Your task to perform on an android device: Open Google Chrome Image 0: 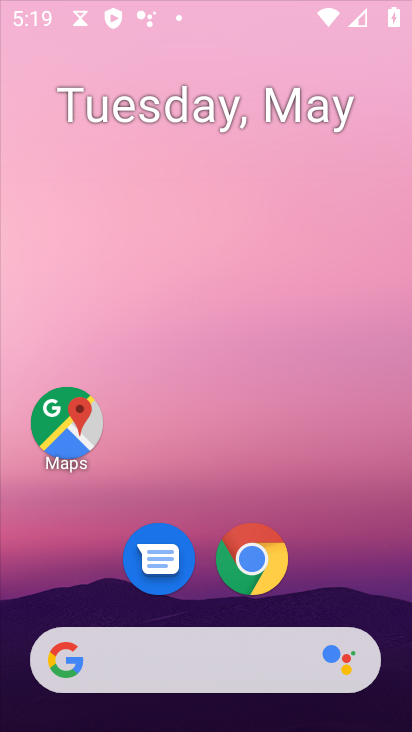
Step 0: drag from (305, 643) to (264, 214)
Your task to perform on an android device: Open Google Chrome Image 1: 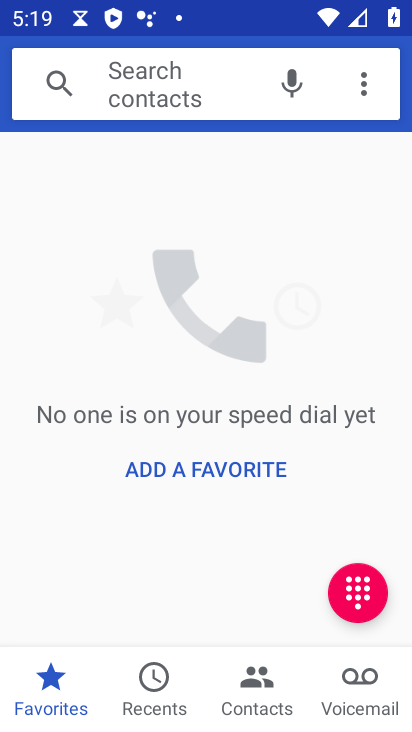
Step 1: press back button
Your task to perform on an android device: Open Google Chrome Image 2: 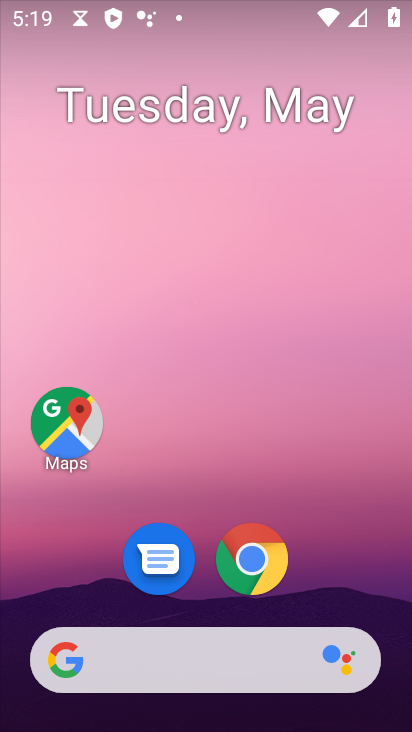
Step 2: drag from (325, 553) to (88, 166)
Your task to perform on an android device: Open Google Chrome Image 3: 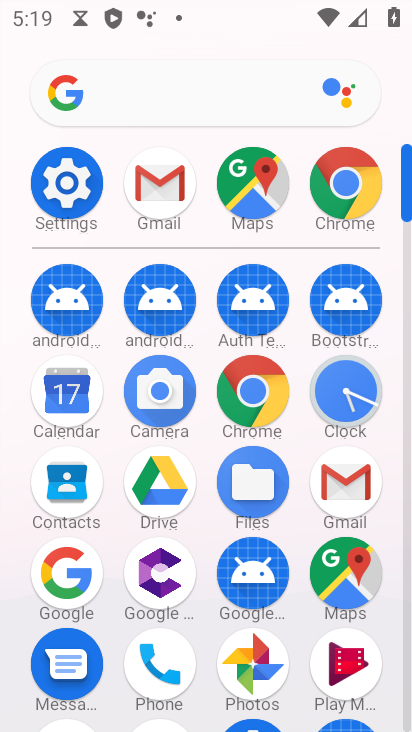
Step 3: click (339, 174)
Your task to perform on an android device: Open Google Chrome Image 4: 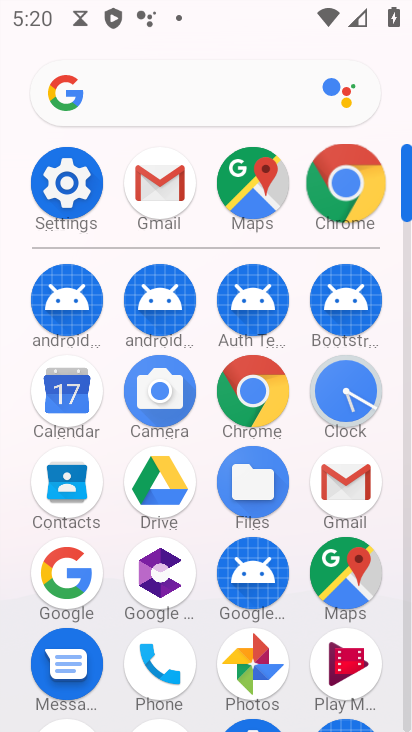
Step 4: click (339, 174)
Your task to perform on an android device: Open Google Chrome Image 5: 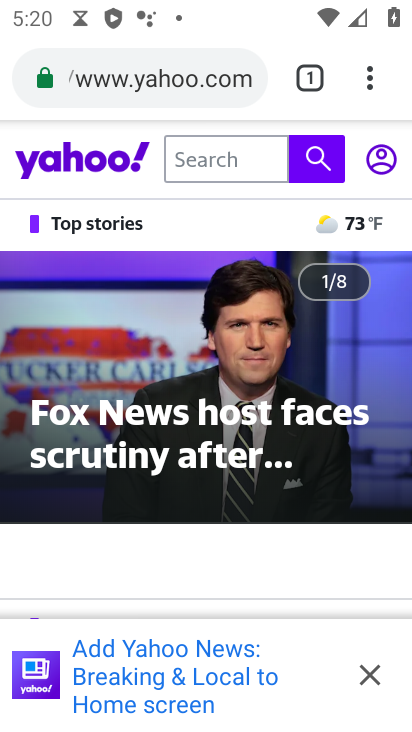
Step 5: click (370, 69)
Your task to perform on an android device: Open Google Chrome Image 6: 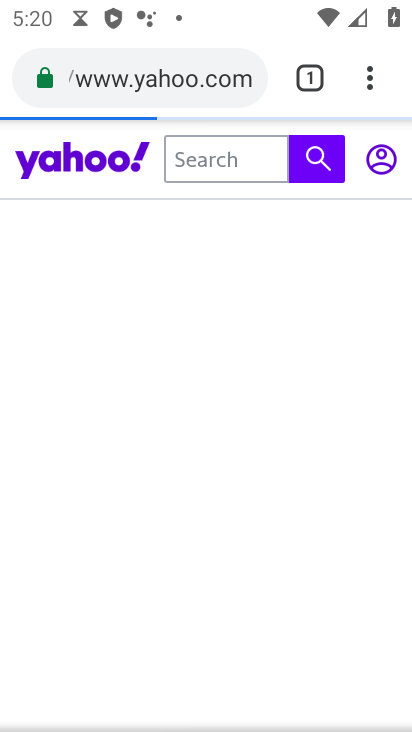
Step 6: press back button
Your task to perform on an android device: Open Google Chrome Image 7: 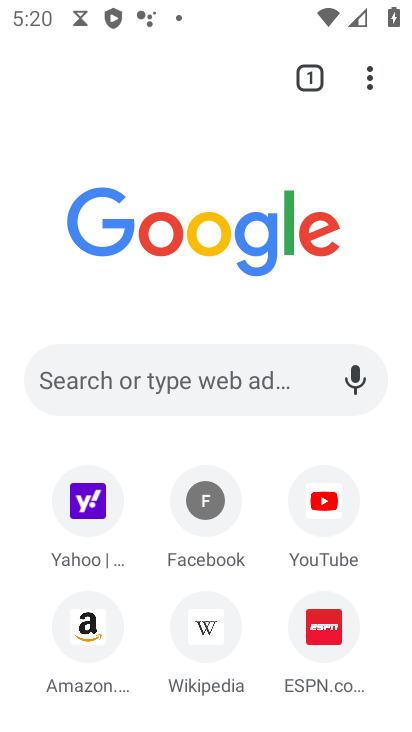
Step 7: press home button
Your task to perform on an android device: Open Google Chrome Image 8: 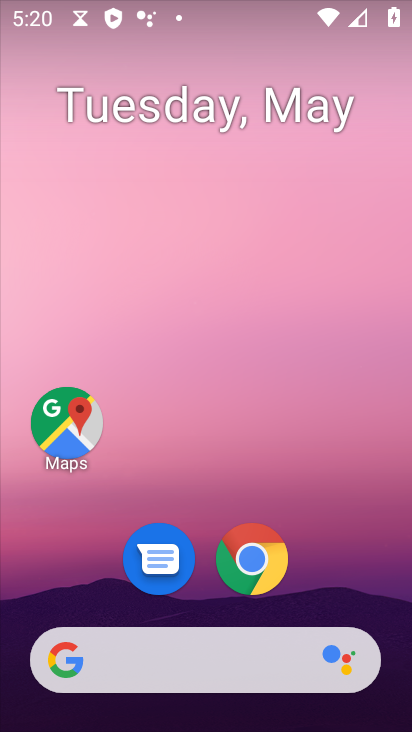
Step 8: drag from (271, 632) to (214, 10)
Your task to perform on an android device: Open Google Chrome Image 9: 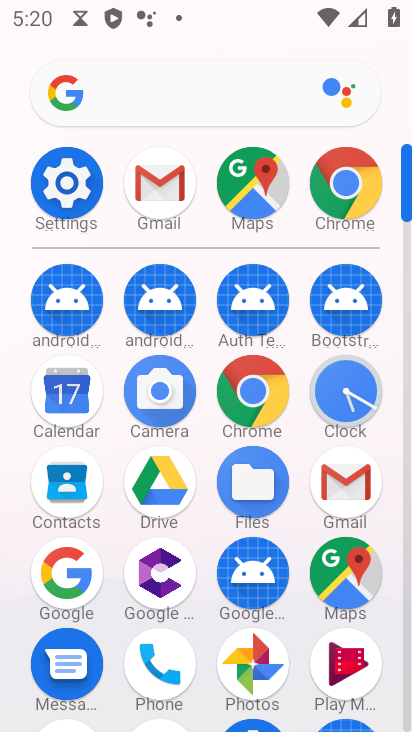
Step 9: click (58, 577)
Your task to perform on an android device: Open Google Chrome Image 10: 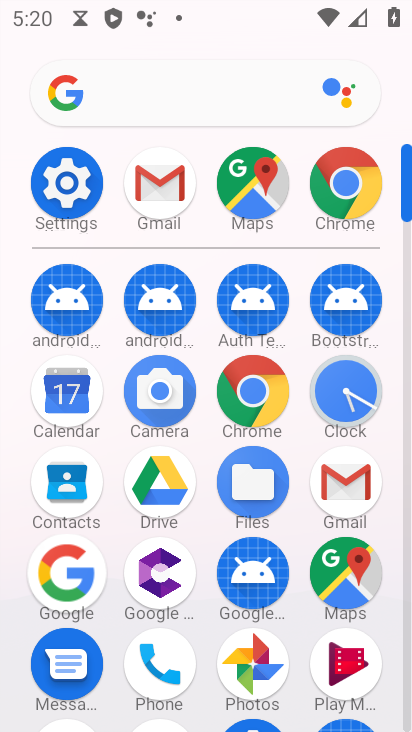
Step 10: click (60, 581)
Your task to perform on an android device: Open Google Chrome Image 11: 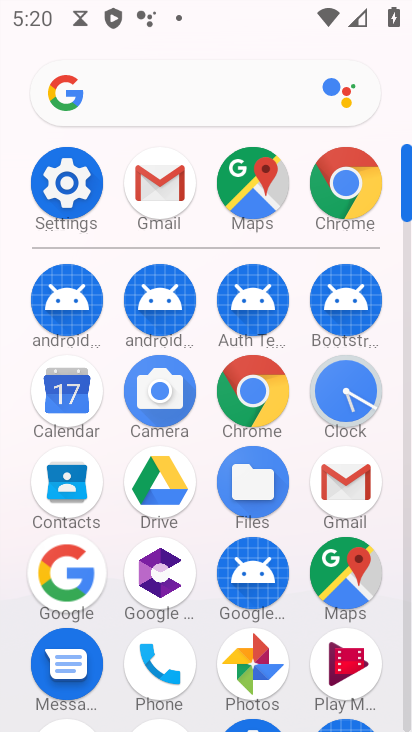
Step 11: click (62, 581)
Your task to perform on an android device: Open Google Chrome Image 12: 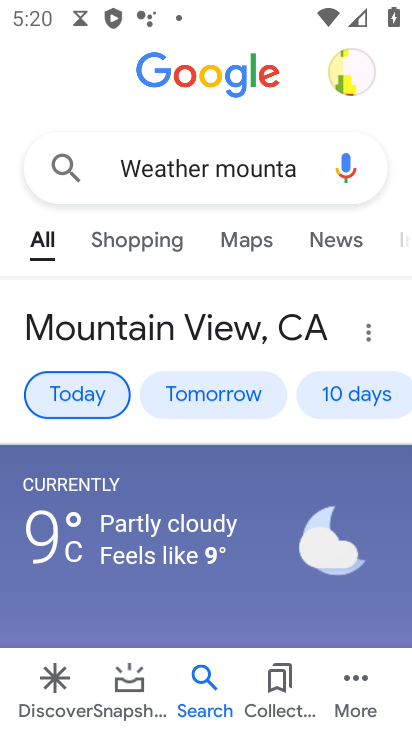
Step 12: press back button
Your task to perform on an android device: Open Google Chrome Image 13: 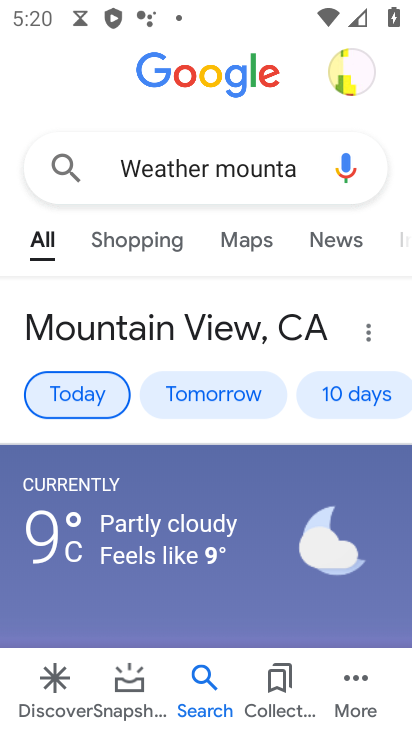
Step 13: press back button
Your task to perform on an android device: Open Google Chrome Image 14: 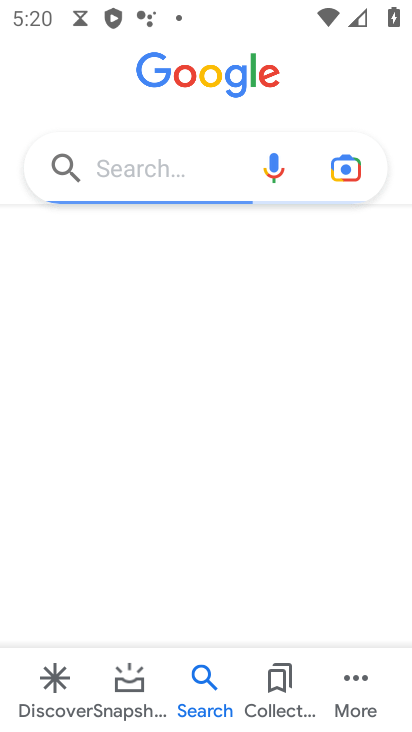
Step 14: press back button
Your task to perform on an android device: Open Google Chrome Image 15: 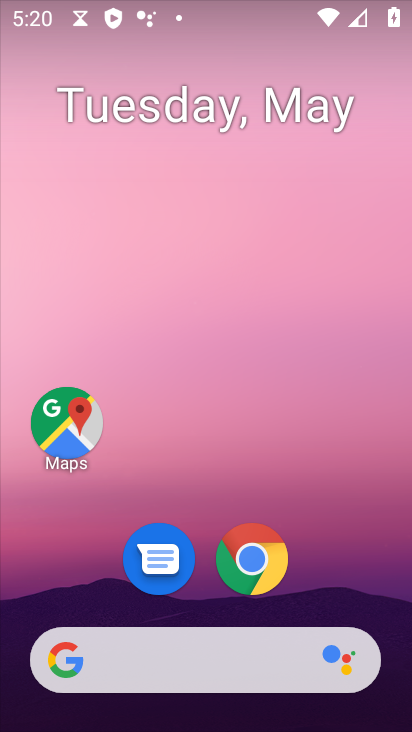
Step 15: drag from (249, 367) to (200, 120)
Your task to perform on an android device: Open Google Chrome Image 16: 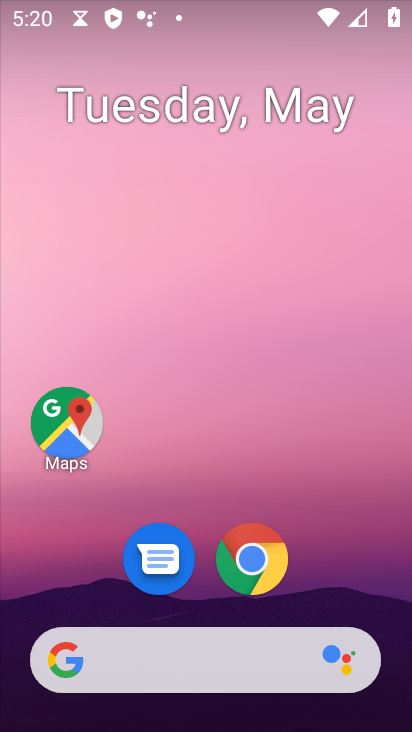
Step 16: drag from (352, 625) to (191, 135)
Your task to perform on an android device: Open Google Chrome Image 17: 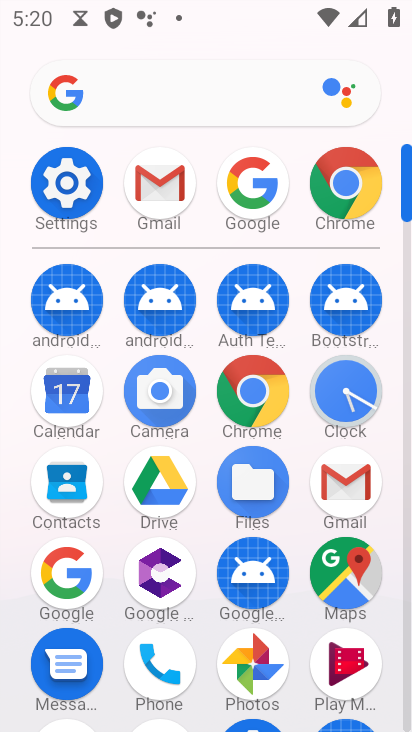
Step 17: click (60, 589)
Your task to perform on an android device: Open Google Chrome Image 18: 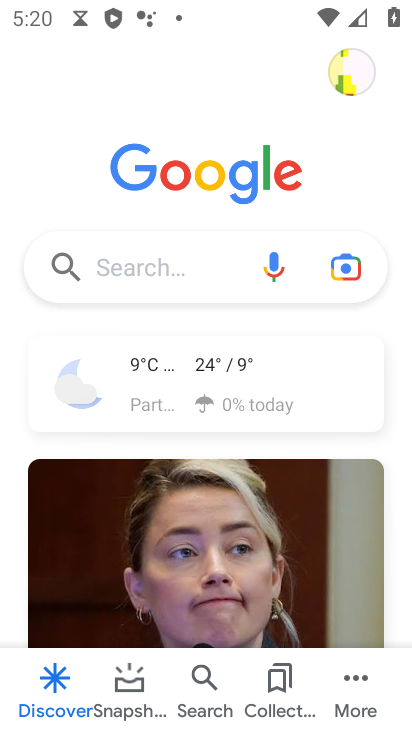
Step 18: task complete